Your task to perform on an android device: What's the weather today? Image 0: 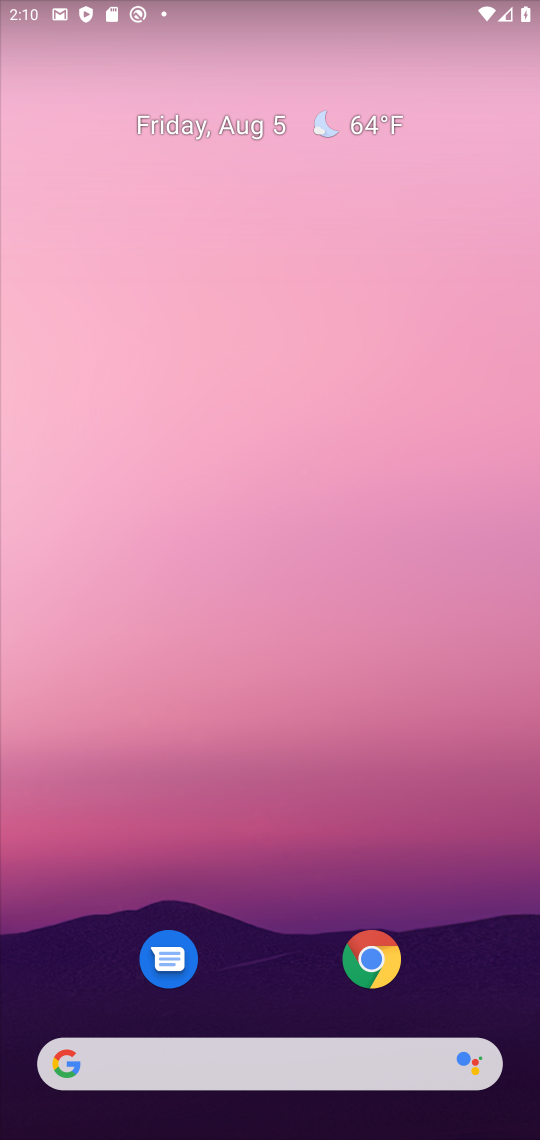
Step 0: click (355, 1061)
Your task to perform on an android device: What's the weather today? Image 1: 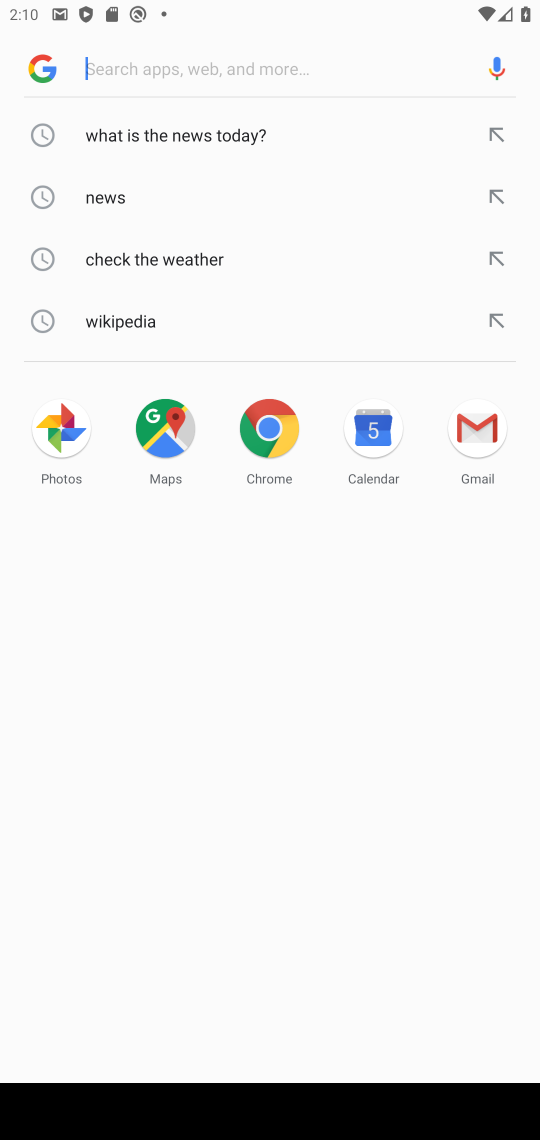
Step 1: click (268, 72)
Your task to perform on an android device: What's the weather today? Image 2: 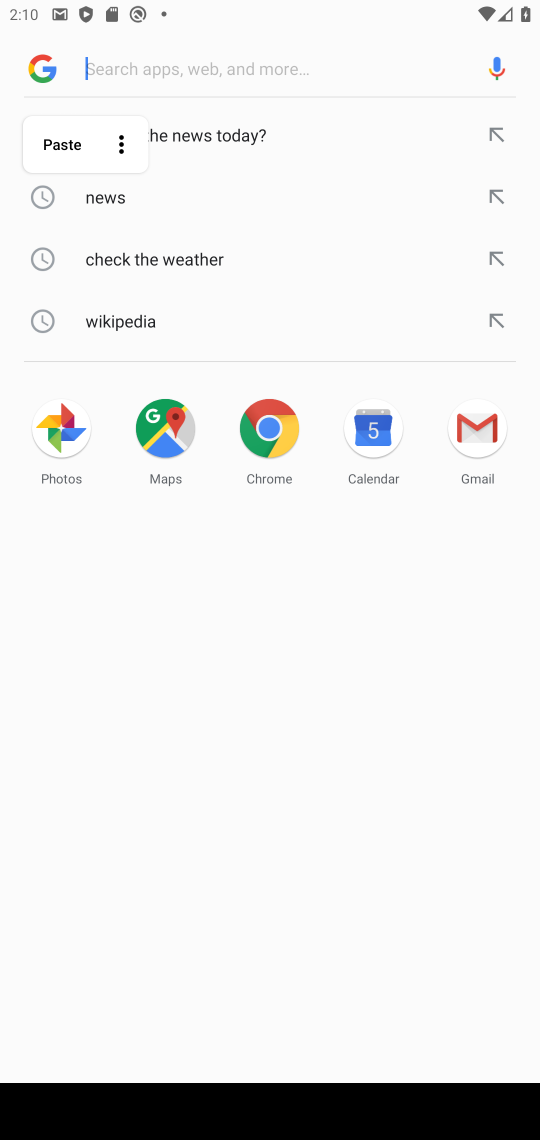
Step 2: type "What's the weather today?"
Your task to perform on an android device: What's the weather today? Image 3: 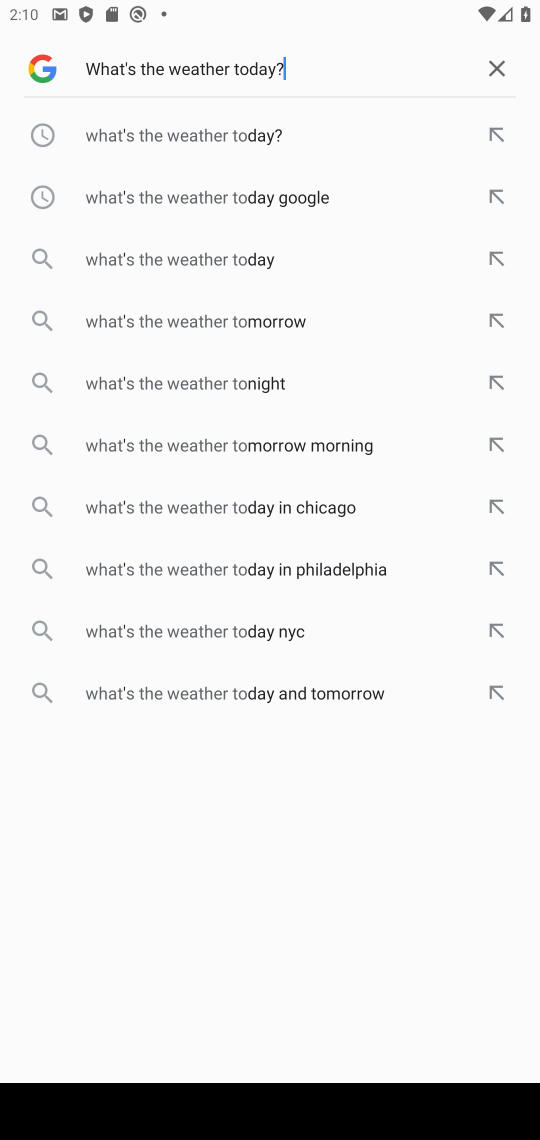
Step 3: press enter
Your task to perform on an android device: What's the weather today? Image 4: 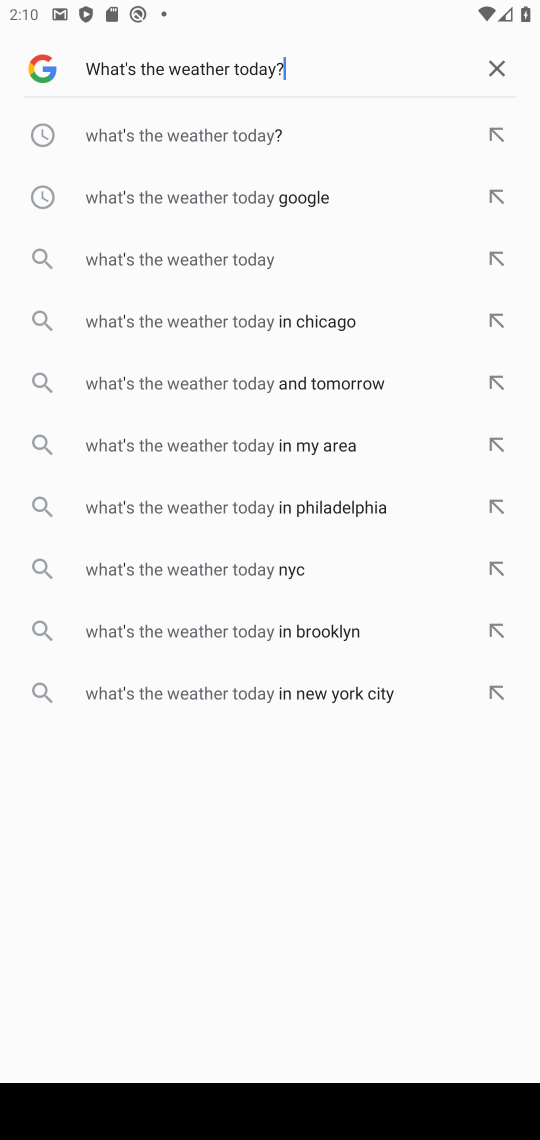
Step 4: type ""
Your task to perform on an android device: What's the weather today? Image 5: 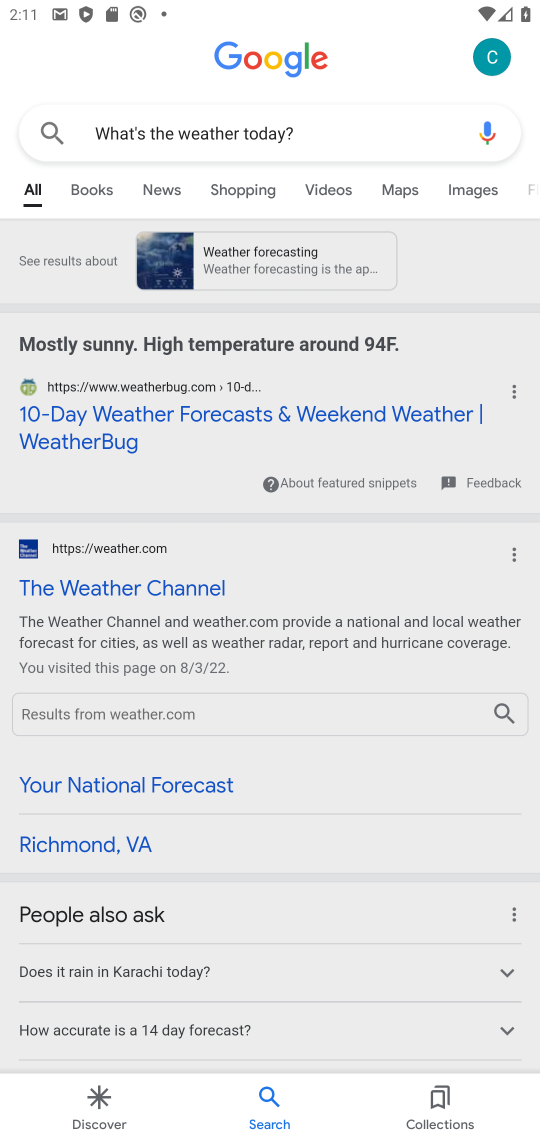
Step 5: click (361, 147)
Your task to perform on an android device: What's the weather today? Image 6: 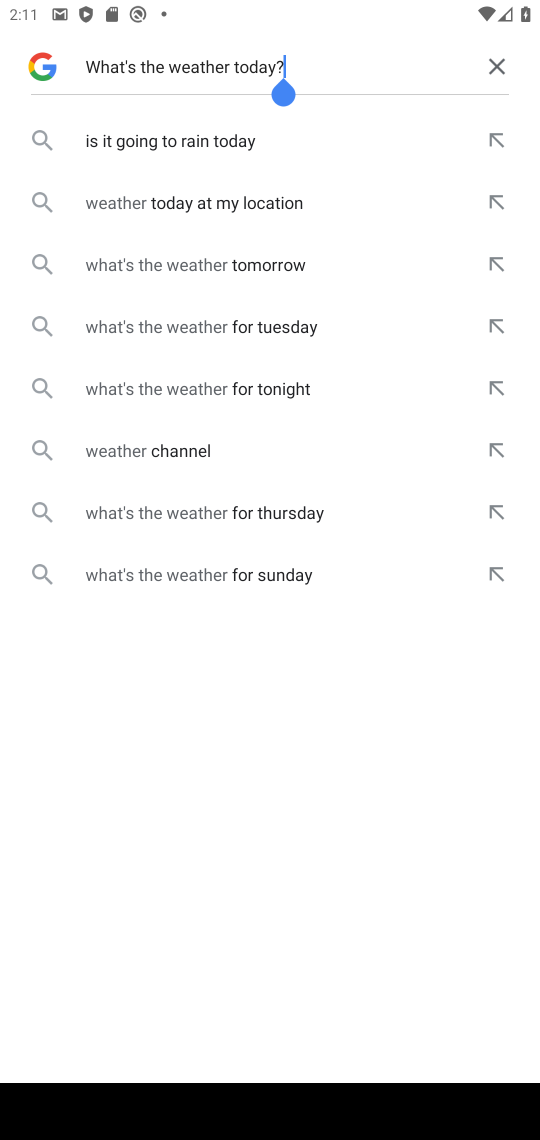
Step 6: click (362, 69)
Your task to perform on an android device: What's the weather today? Image 7: 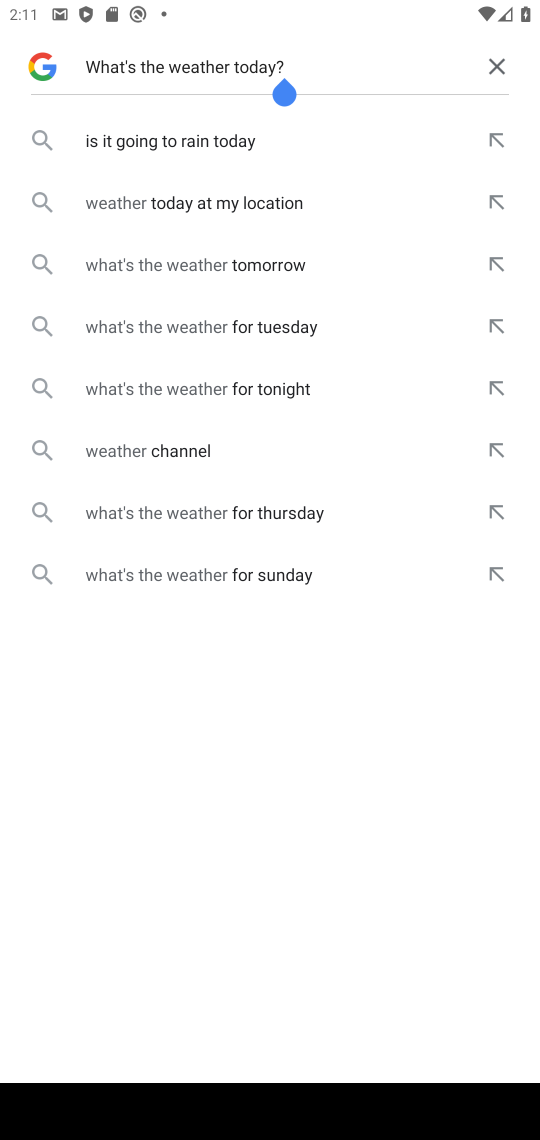
Step 7: press enter
Your task to perform on an android device: What's the weather today? Image 8: 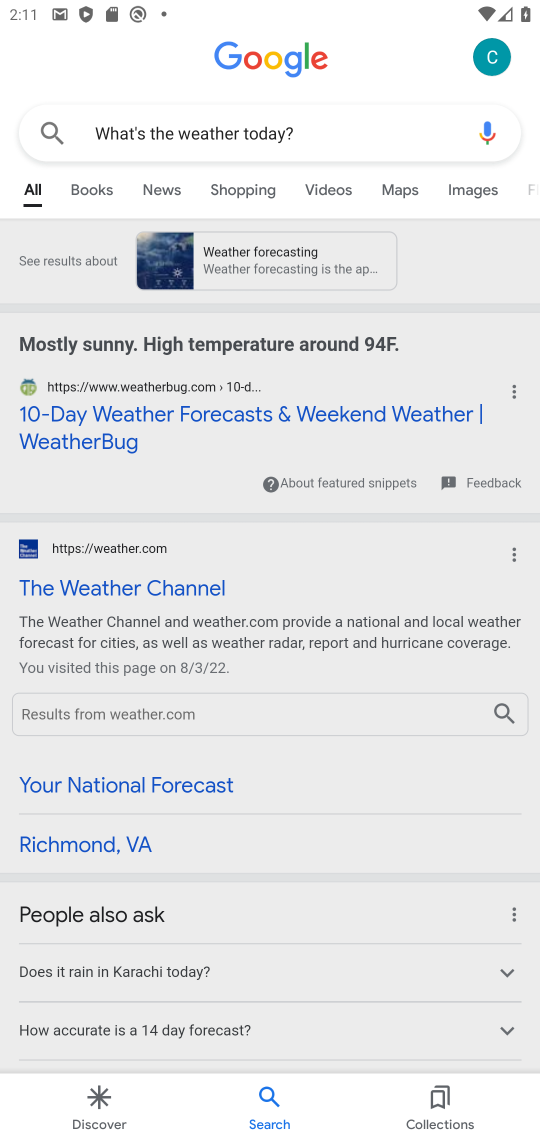
Step 8: click (311, 131)
Your task to perform on an android device: What's the weather today? Image 9: 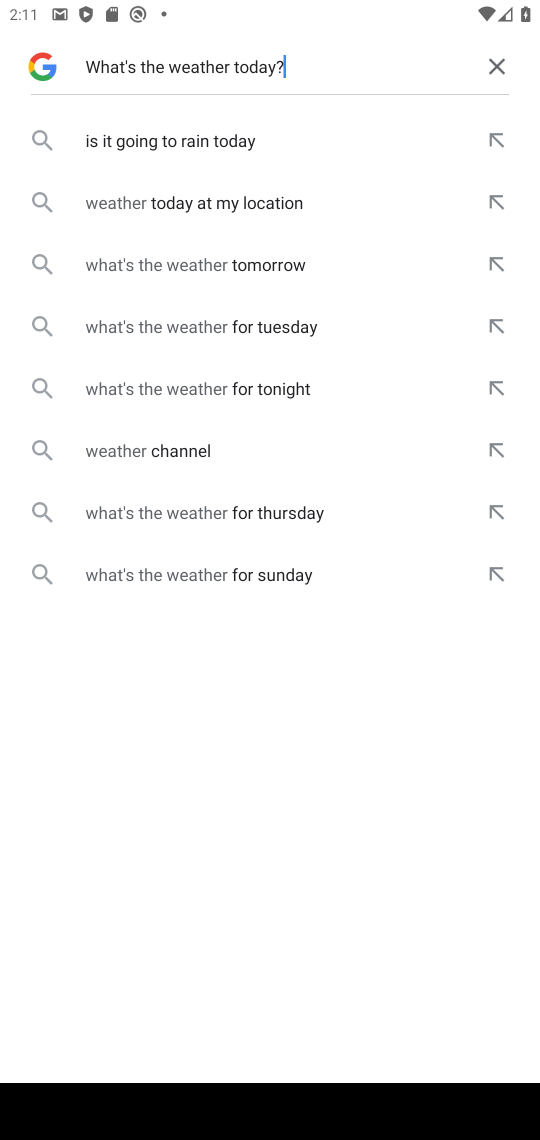
Step 9: type ""
Your task to perform on an android device: What's the weather today? Image 10: 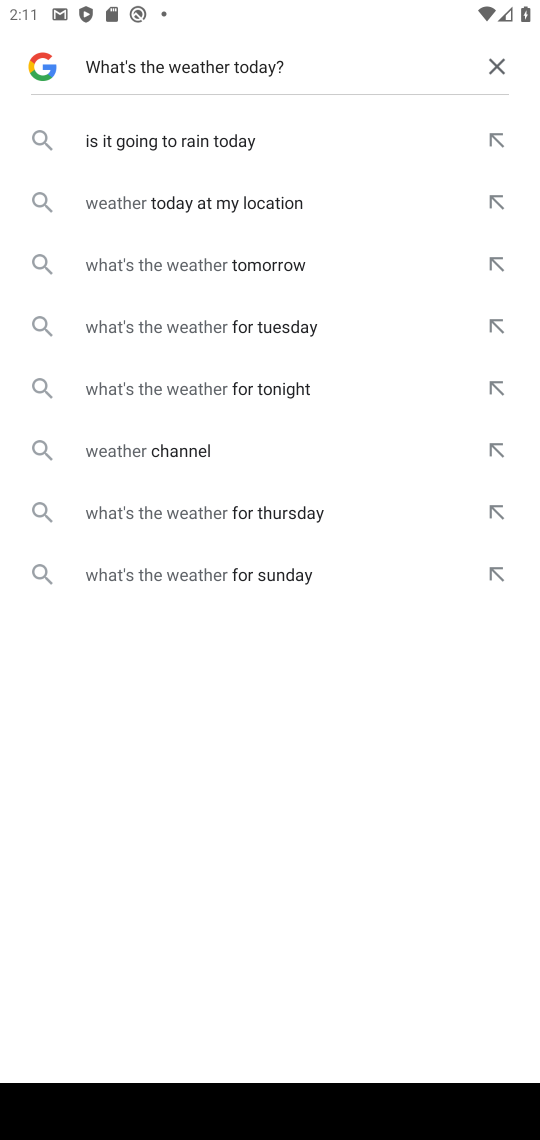
Step 10: press enter
Your task to perform on an android device: What's the weather today? Image 11: 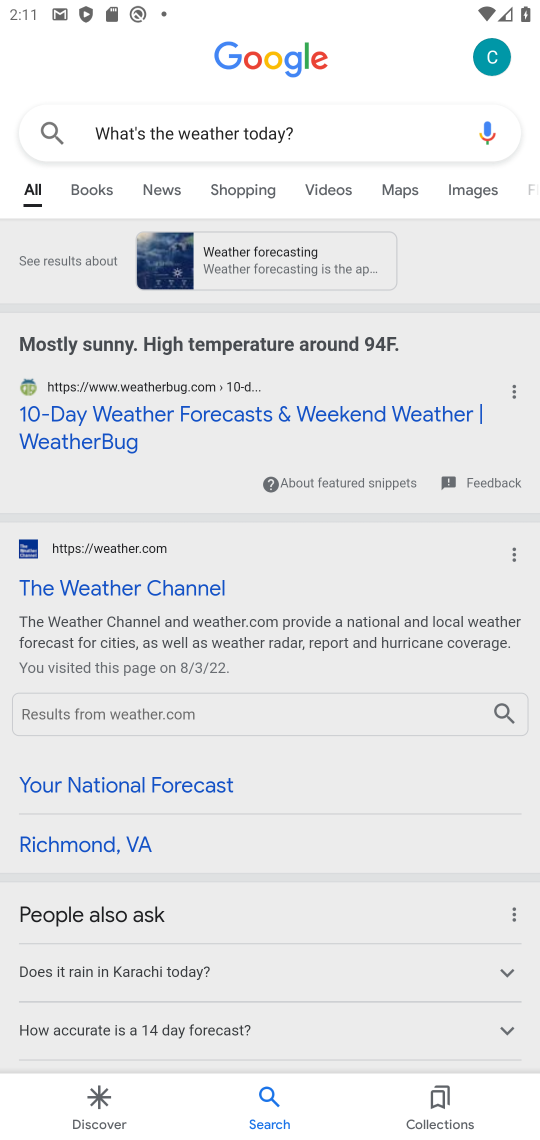
Step 11: press enter
Your task to perform on an android device: What's the weather today? Image 12: 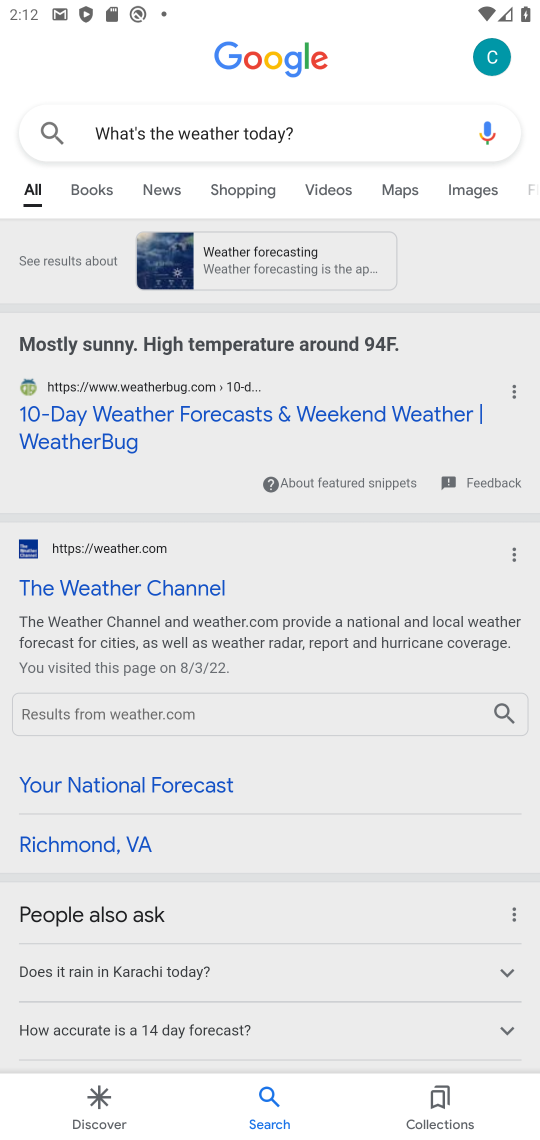
Step 12: task complete